Your task to perform on an android device: Open Android settings Image 0: 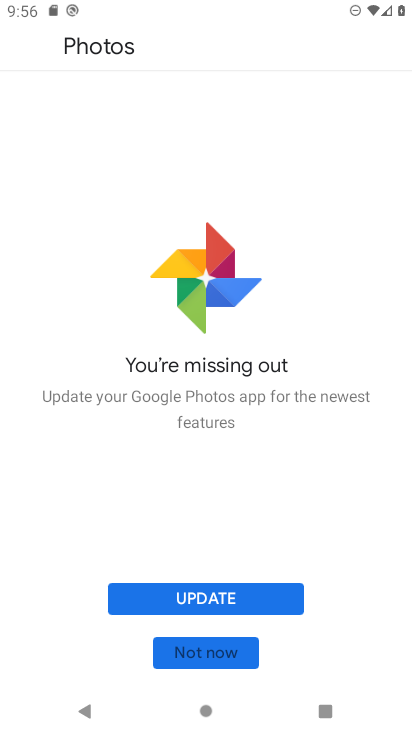
Step 0: click (218, 644)
Your task to perform on an android device: Open Android settings Image 1: 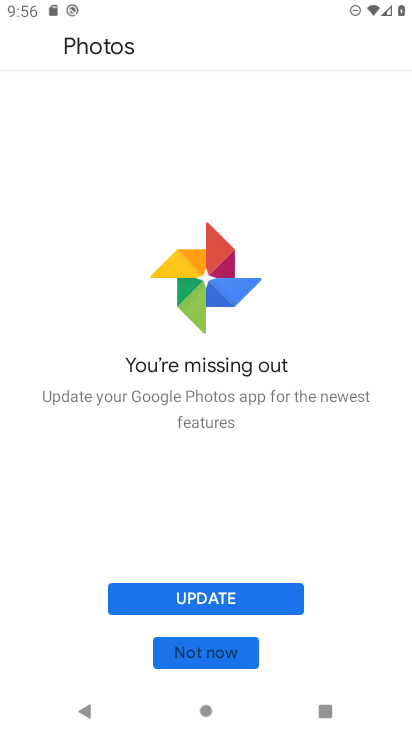
Step 1: click (218, 644)
Your task to perform on an android device: Open Android settings Image 2: 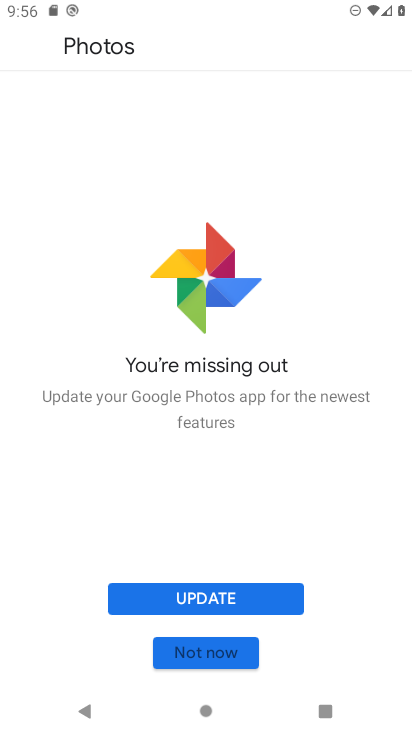
Step 2: click (226, 658)
Your task to perform on an android device: Open Android settings Image 3: 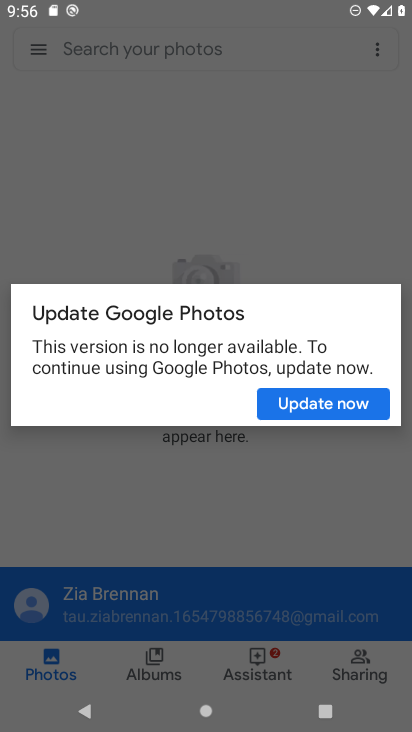
Step 3: press back button
Your task to perform on an android device: Open Android settings Image 4: 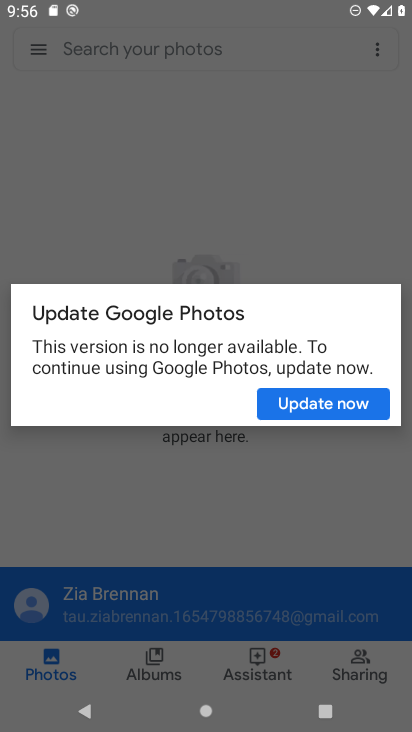
Step 4: press back button
Your task to perform on an android device: Open Android settings Image 5: 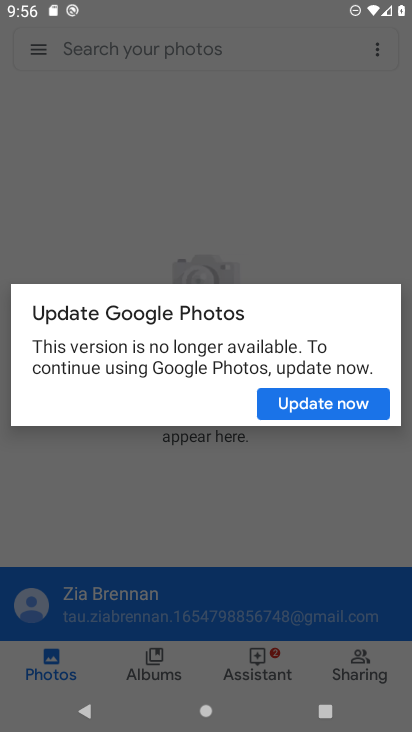
Step 5: press back button
Your task to perform on an android device: Open Android settings Image 6: 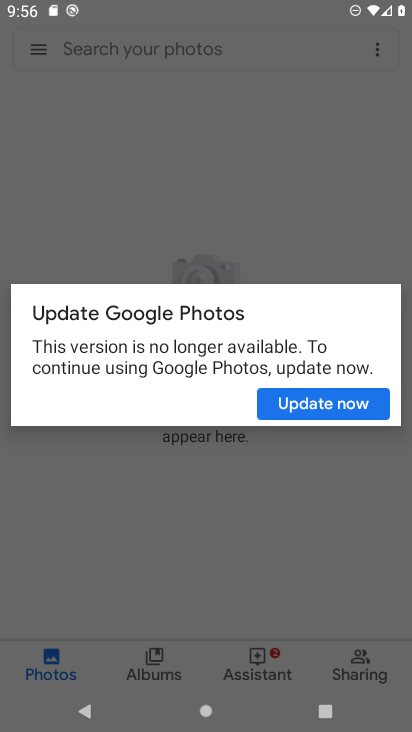
Step 6: press back button
Your task to perform on an android device: Open Android settings Image 7: 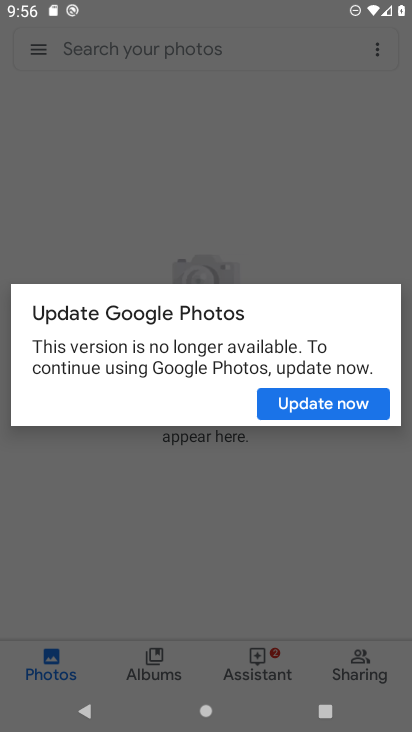
Step 7: press back button
Your task to perform on an android device: Open Android settings Image 8: 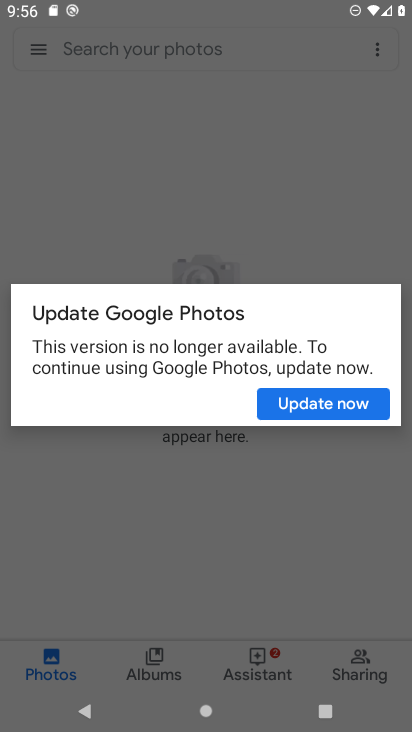
Step 8: press home button
Your task to perform on an android device: Open Android settings Image 9: 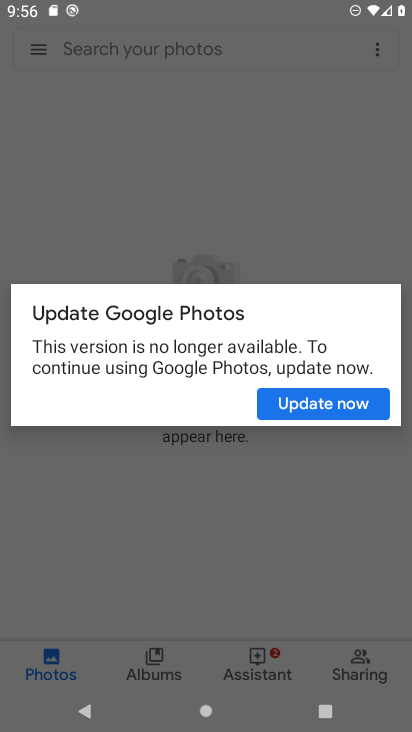
Step 9: press home button
Your task to perform on an android device: Open Android settings Image 10: 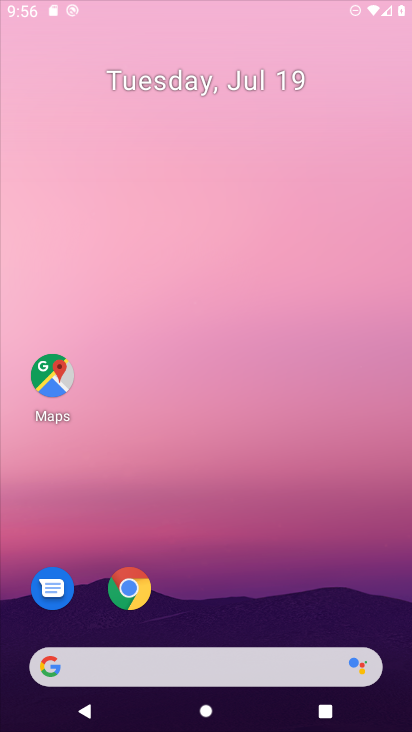
Step 10: press home button
Your task to perform on an android device: Open Android settings Image 11: 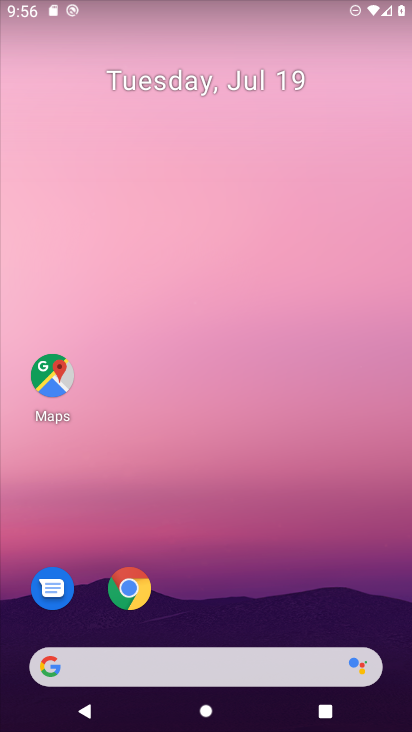
Step 11: press home button
Your task to perform on an android device: Open Android settings Image 12: 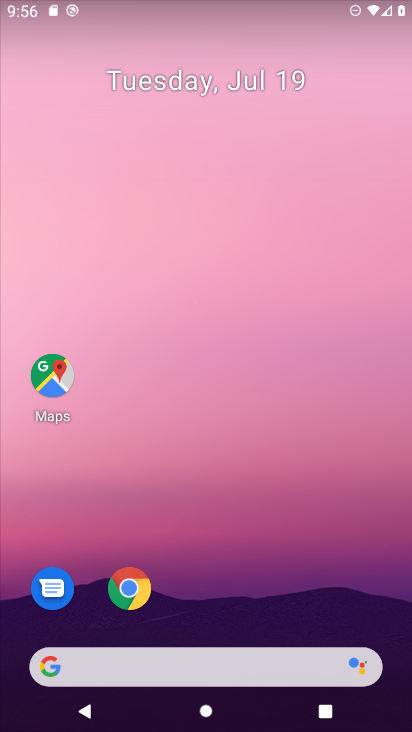
Step 12: press home button
Your task to perform on an android device: Open Android settings Image 13: 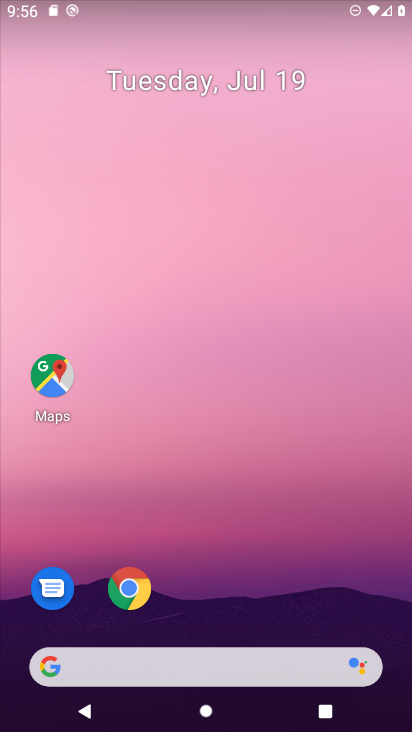
Step 13: drag from (250, 690) to (195, 216)
Your task to perform on an android device: Open Android settings Image 14: 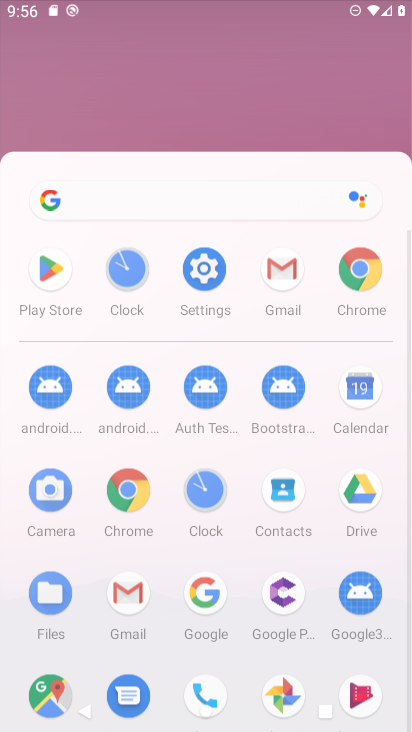
Step 14: drag from (217, 582) to (198, 276)
Your task to perform on an android device: Open Android settings Image 15: 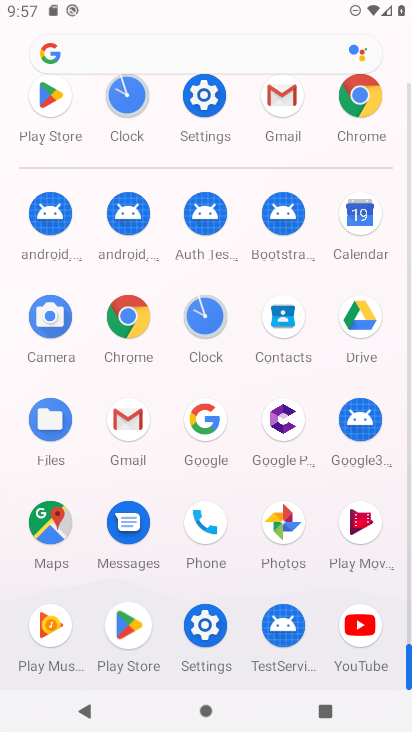
Step 15: click (211, 634)
Your task to perform on an android device: Open Android settings Image 16: 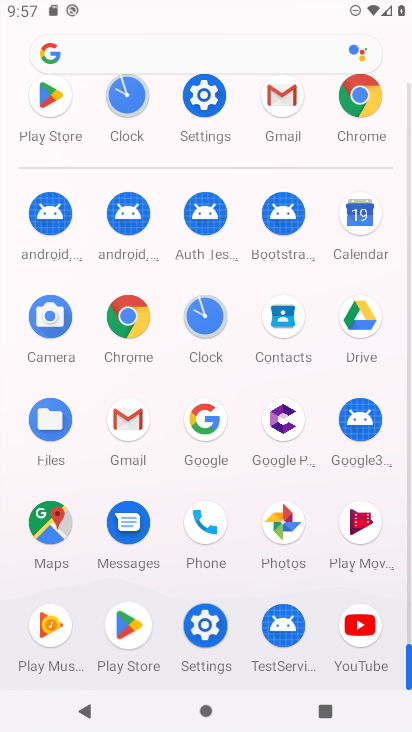
Step 16: click (208, 631)
Your task to perform on an android device: Open Android settings Image 17: 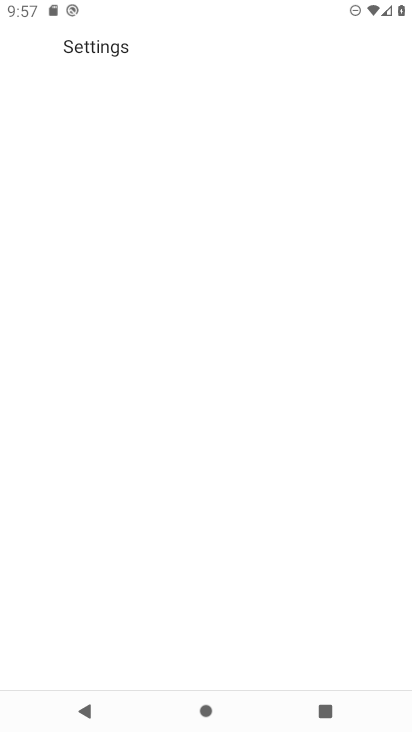
Step 17: click (204, 626)
Your task to perform on an android device: Open Android settings Image 18: 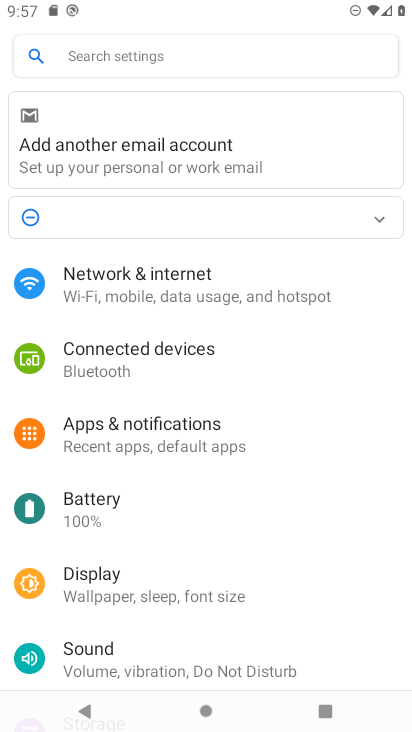
Step 18: drag from (194, 489) to (199, 190)
Your task to perform on an android device: Open Android settings Image 19: 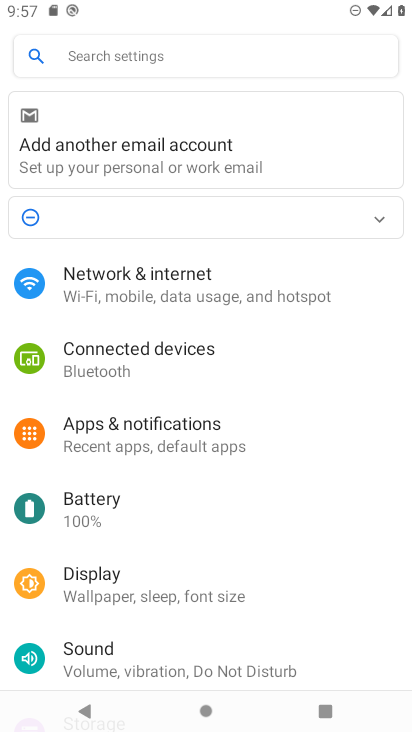
Step 19: drag from (191, 544) to (162, 252)
Your task to perform on an android device: Open Android settings Image 20: 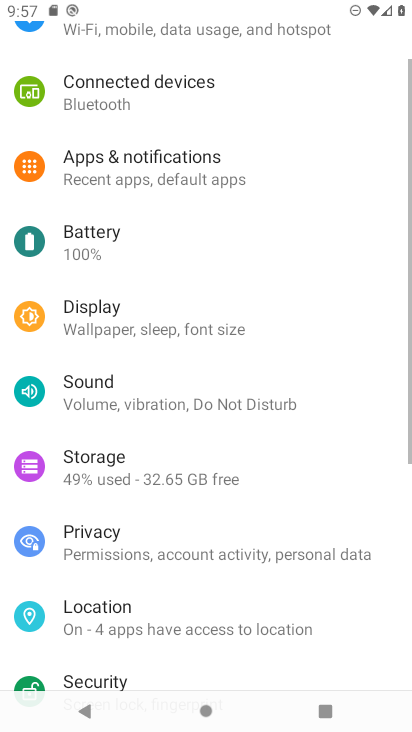
Step 20: drag from (105, 546) to (140, 321)
Your task to perform on an android device: Open Android settings Image 21: 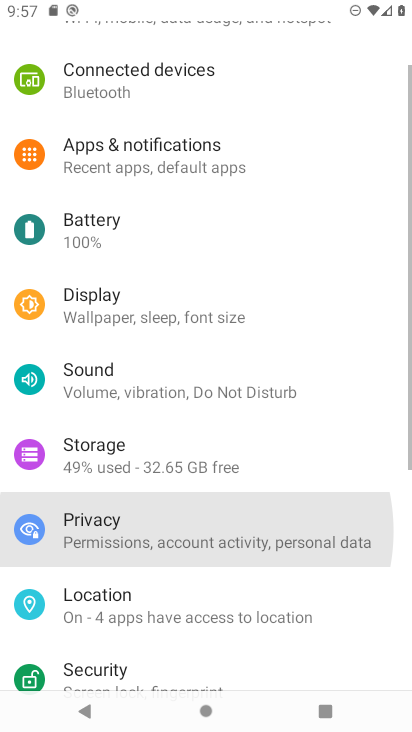
Step 21: drag from (145, 536) to (176, 323)
Your task to perform on an android device: Open Android settings Image 22: 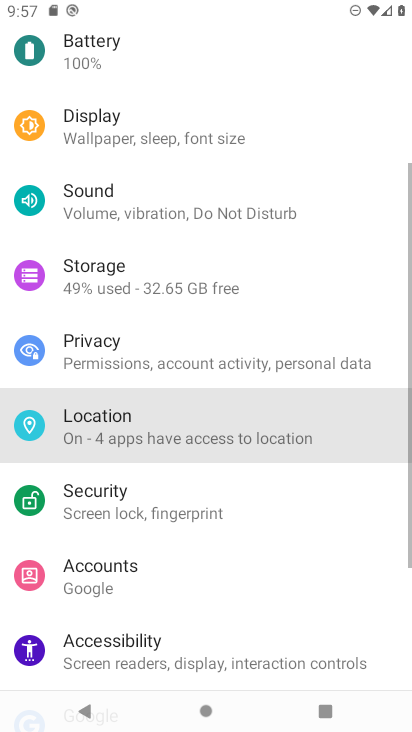
Step 22: drag from (194, 509) to (180, 201)
Your task to perform on an android device: Open Android settings Image 23: 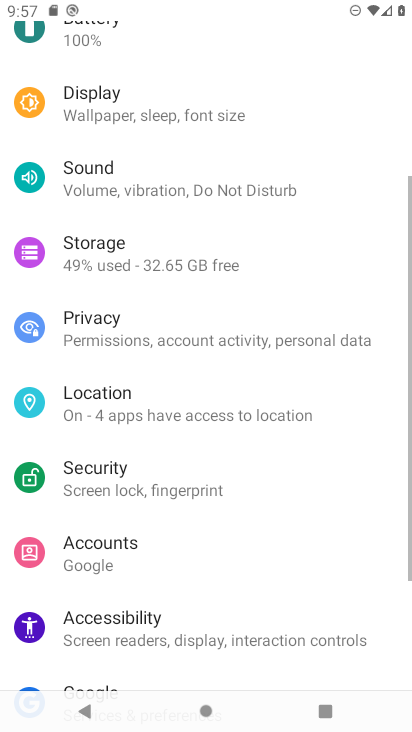
Step 23: drag from (154, 432) to (127, 209)
Your task to perform on an android device: Open Android settings Image 24: 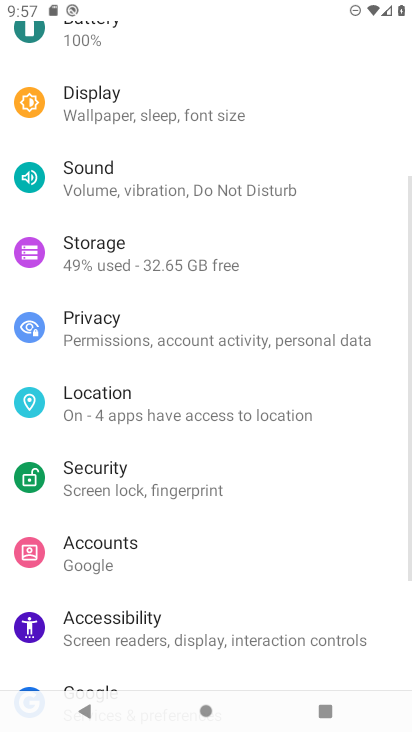
Step 24: drag from (124, 452) to (149, 213)
Your task to perform on an android device: Open Android settings Image 25: 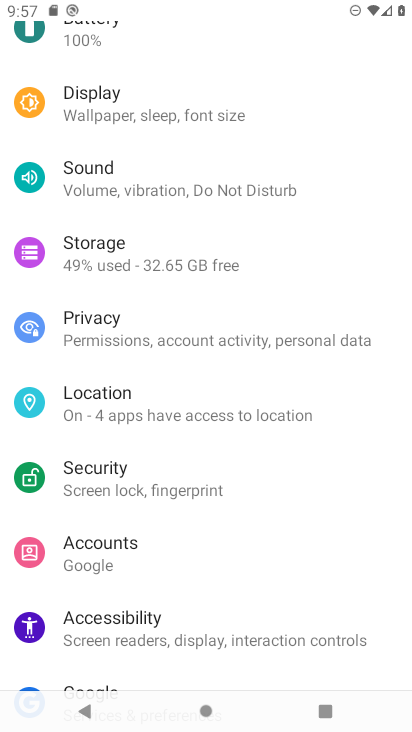
Step 25: drag from (157, 581) to (184, 360)
Your task to perform on an android device: Open Android settings Image 26: 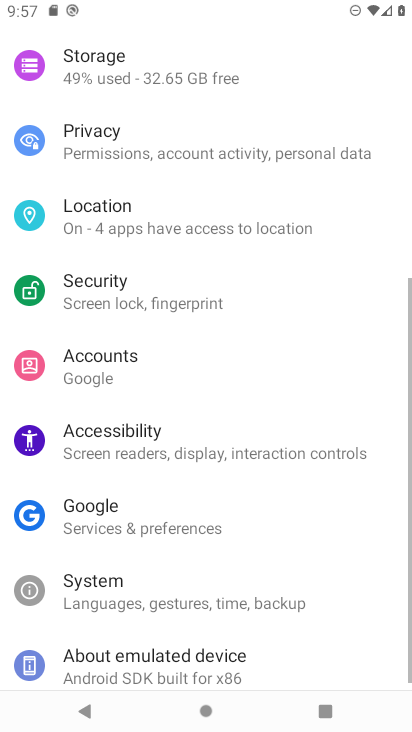
Step 26: drag from (165, 584) to (159, 385)
Your task to perform on an android device: Open Android settings Image 27: 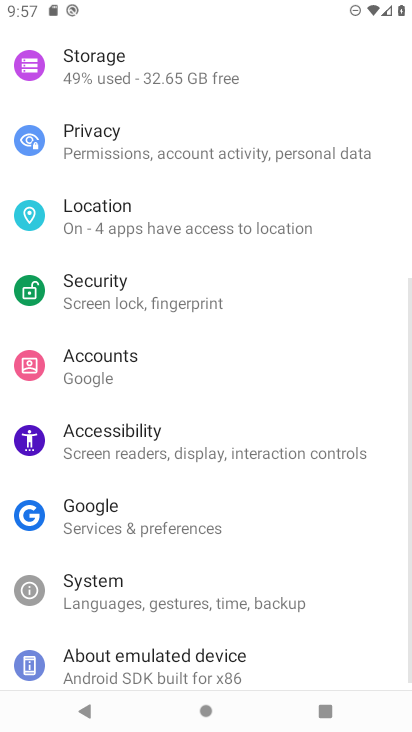
Step 27: drag from (175, 551) to (109, 308)
Your task to perform on an android device: Open Android settings Image 28: 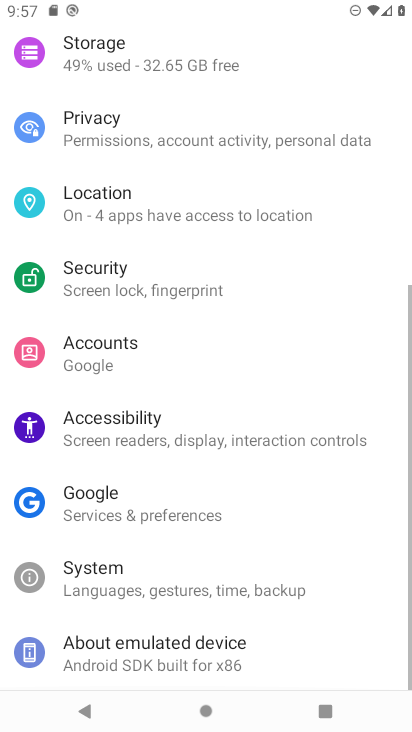
Step 28: click (131, 418)
Your task to perform on an android device: Open Android settings Image 29: 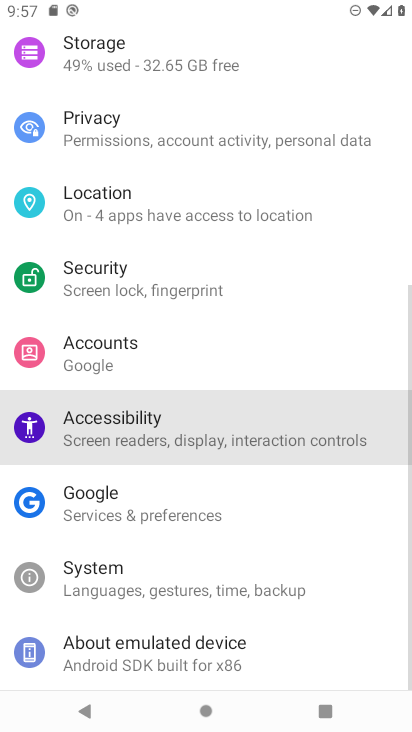
Step 29: click (148, 660)
Your task to perform on an android device: Open Android settings Image 30: 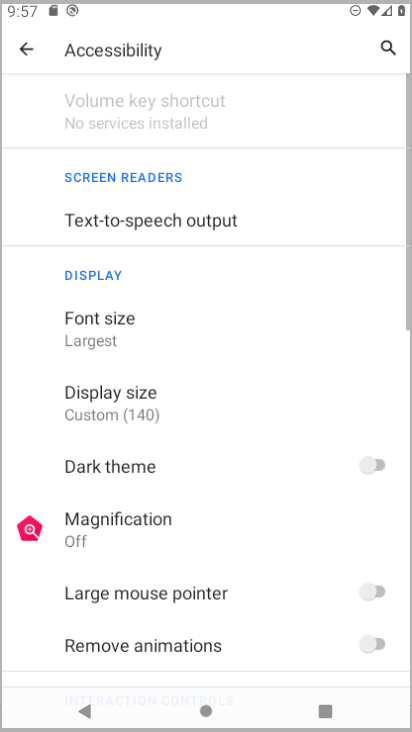
Step 30: click (150, 657)
Your task to perform on an android device: Open Android settings Image 31: 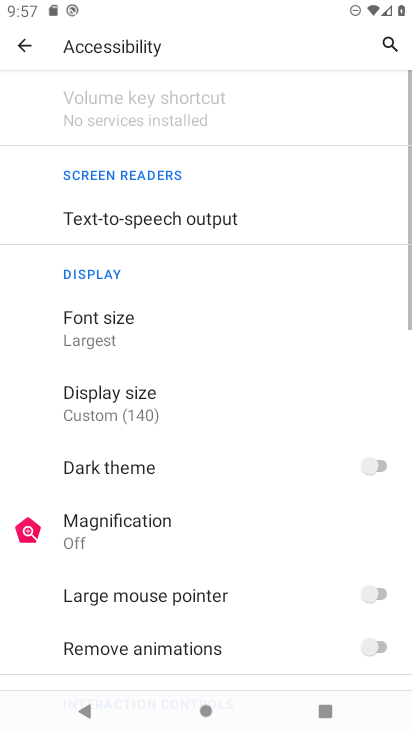
Step 31: click (153, 657)
Your task to perform on an android device: Open Android settings Image 32: 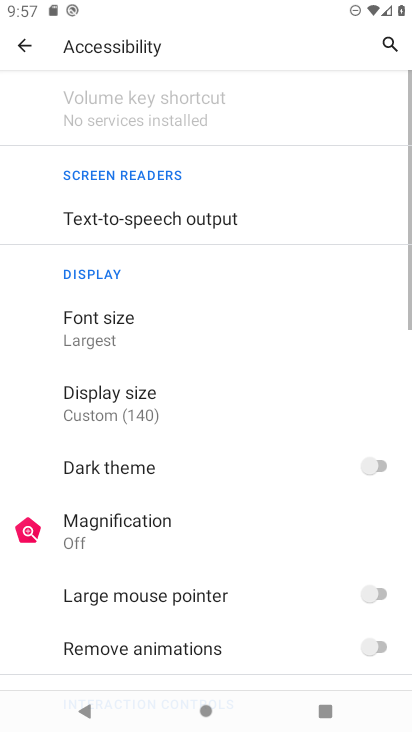
Step 32: click (32, 41)
Your task to perform on an android device: Open Android settings Image 33: 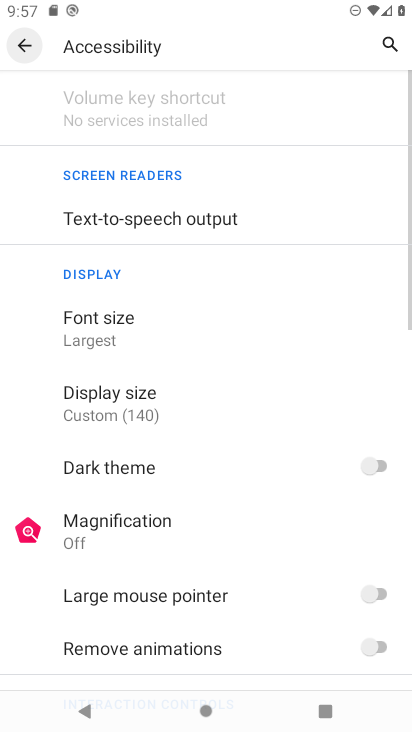
Step 33: click (27, 41)
Your task to perform on an android device: Open Android settings Image 34: 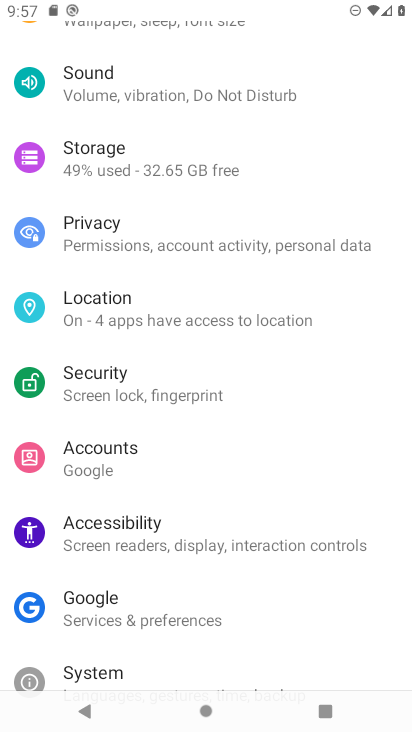
Step 34: drag from (177, 563) to (183, 195)
Your task to perform on an android device: Open Android settings Image 35: 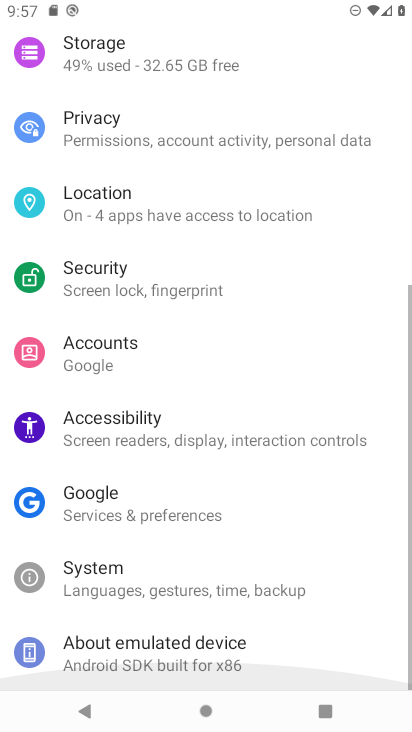
Step 35: click (141, 92)
Your task to perform on an android device: Open Android settings Image 36: 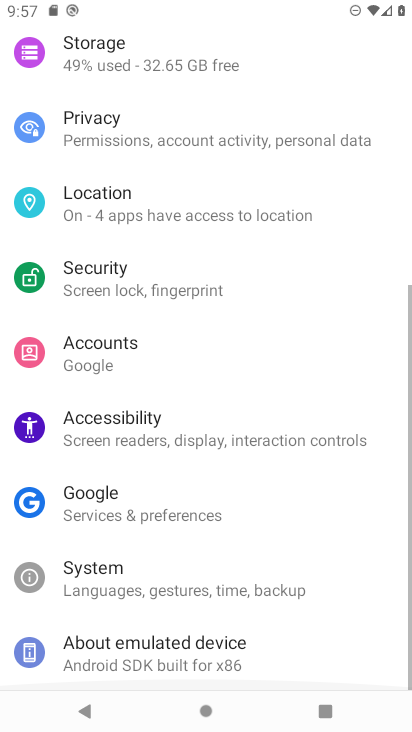
Step 36: drag from (182, 520) to (188, 157)
Your task to perform on an android device: Open Android settings Image 37: 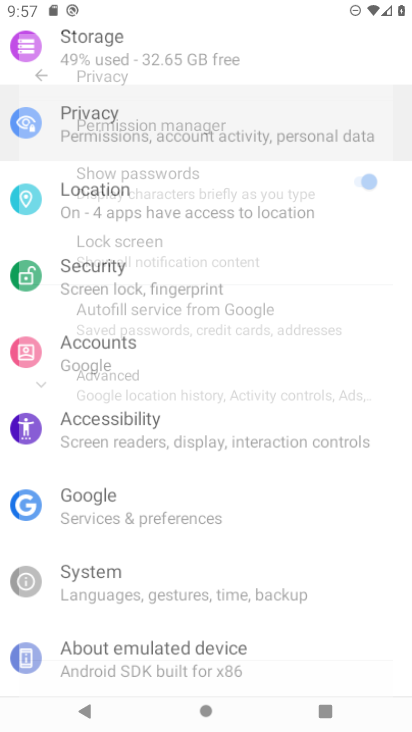
Step 37: click (169, 657)
Your task to perform on an android device: Open Android settings Image 38: 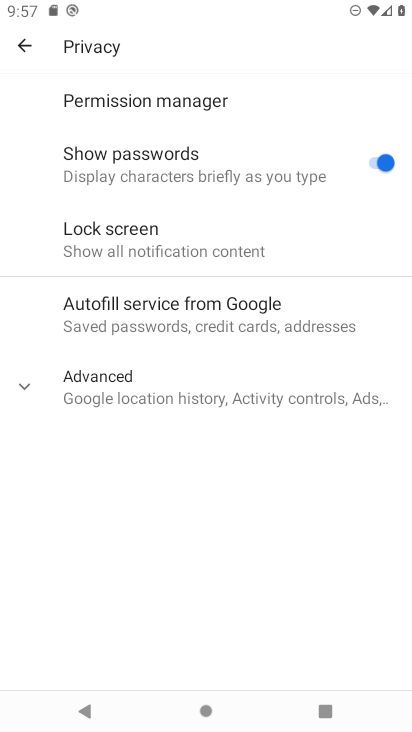
Step 38: click (169, 657)
Your task to perform on an android device: Open Android settings Image 39: 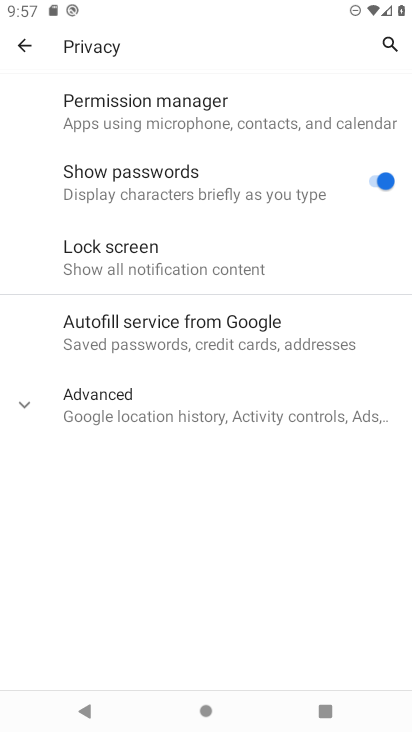
Step 39: click (177, 663)
Your task to perform on an android device: Open Android settings Image 40: 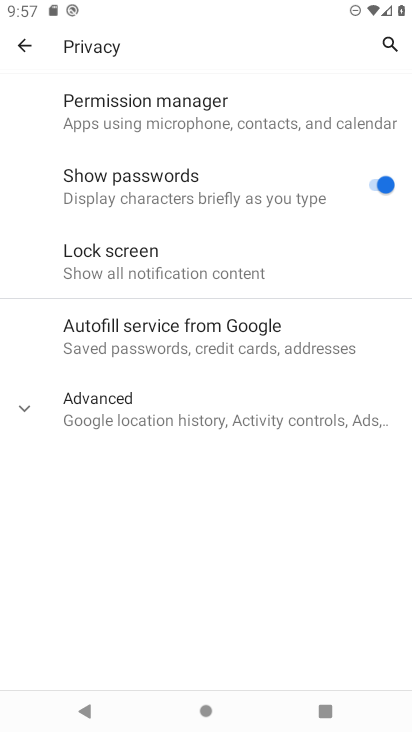
Step 40: click (34, 35)
Your task to perform on an android device: Open Android settings Image 41: 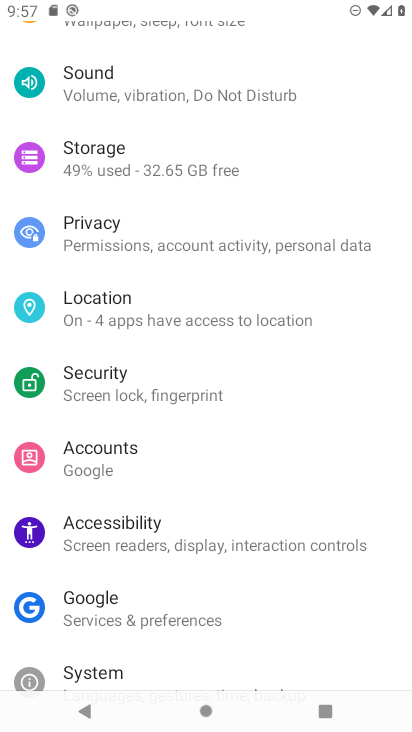
Step 41: task complete